Your task to perform on an android device: Open settings Image 0: 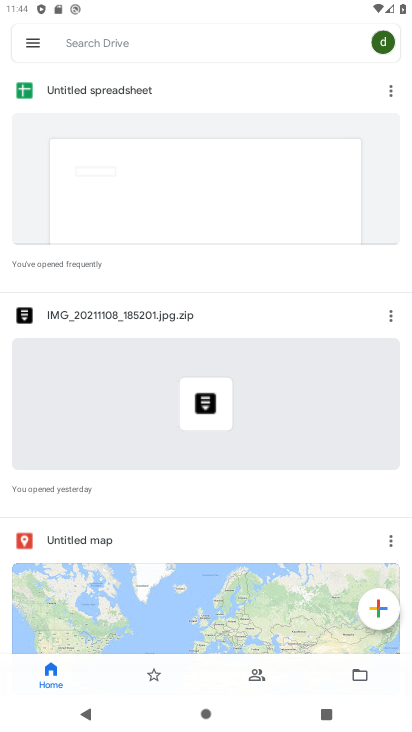
Step 0: press home button
Your task to perform on an android device: Open settings Image 1: 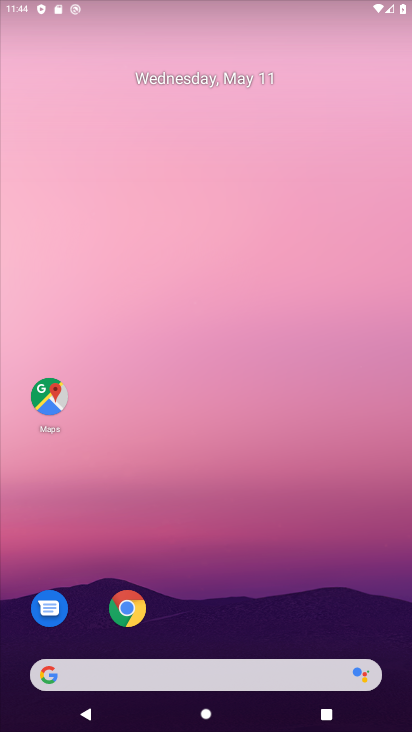
Step 1: drag from (324, 585) to (301, 0)
Your task to perform on an android device: Open settings Image 2: 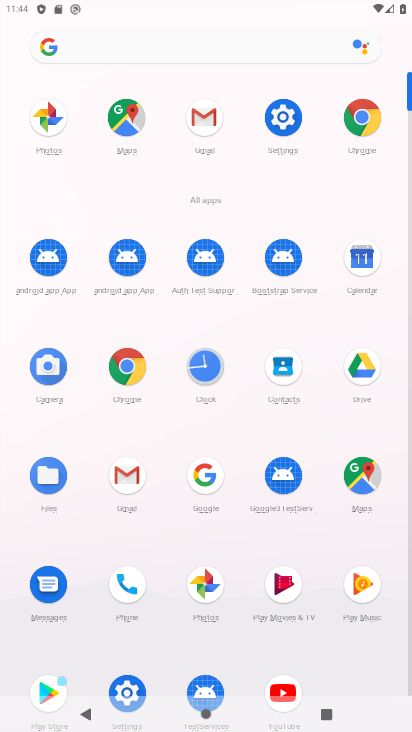
Step 2: click (284, 160)
Your task to perform on an android device: Open settings Image 3: 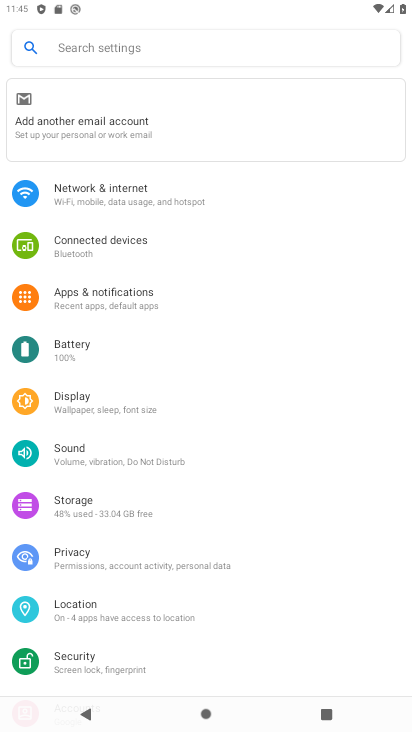
Step 3: task complete